Your task to perform on an android device: choose inbox layout in the gmail app Image 0: 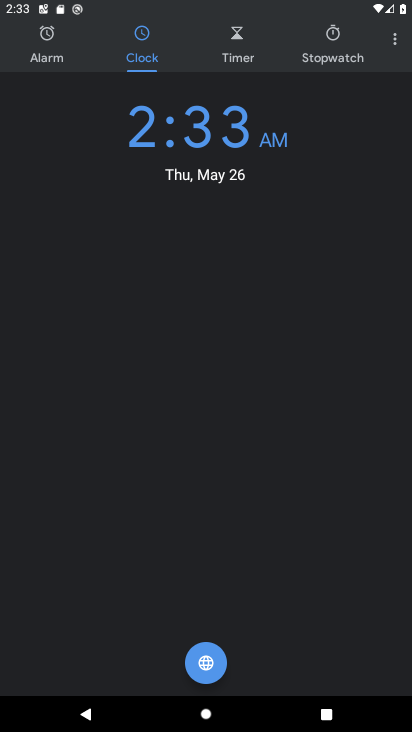
Step 0: press home button
Your task to perform on an android device: choose inbox layout in the gmail app Image 1: 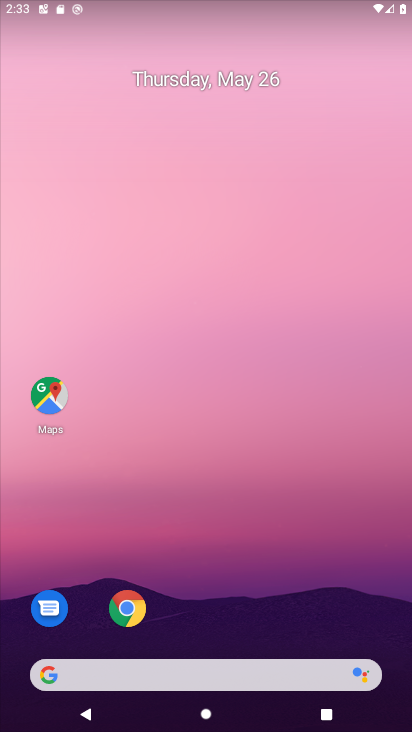
Step 1: drag from (198, 644) to (291, 190)
Your task to perform on an android device: choose inbox layout in the gmail app Image 2: 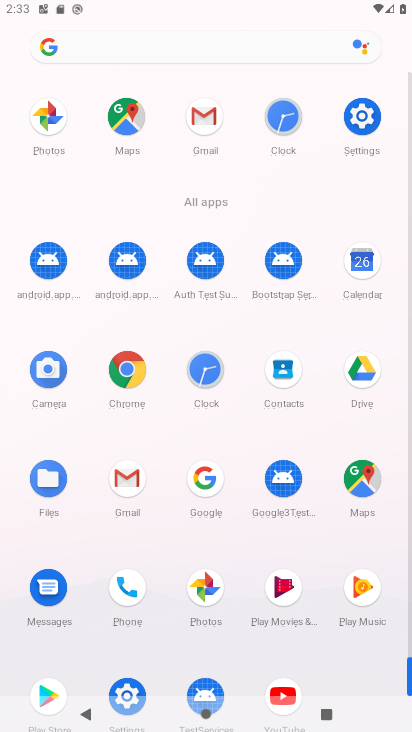
Step 2: click (129, 476)
Your task to perform on an android device: choose inbox layout in the gmail app Image 3: 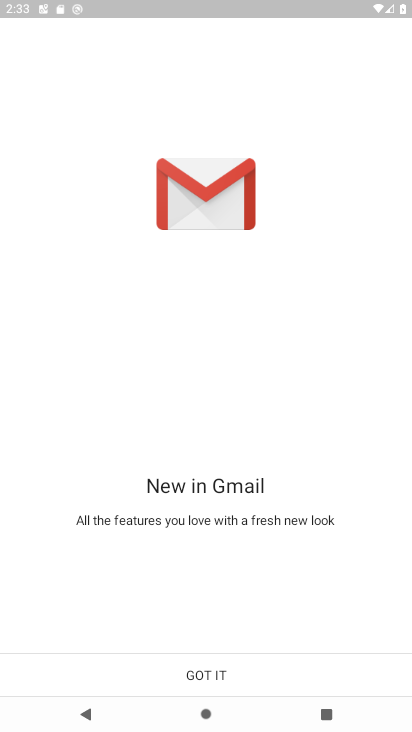
Step 3: click (208, 682)
Your task to perform on an android device: choose inbox layout in the gmail app Image 4: 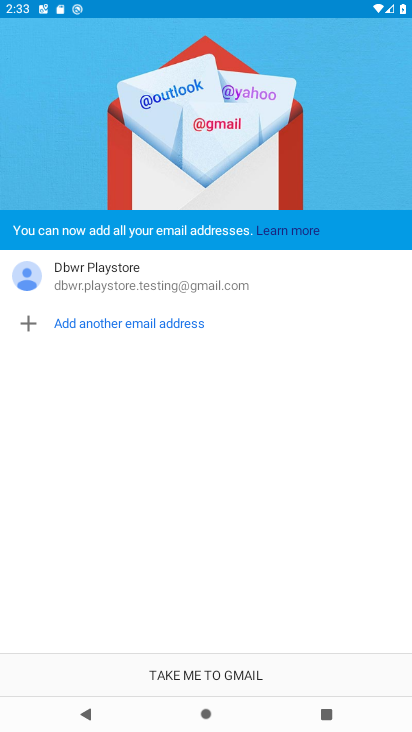
Step 4: click (208, 682)
Your task to perform on an android device: choose inbox layout in the gmail app Image 5: 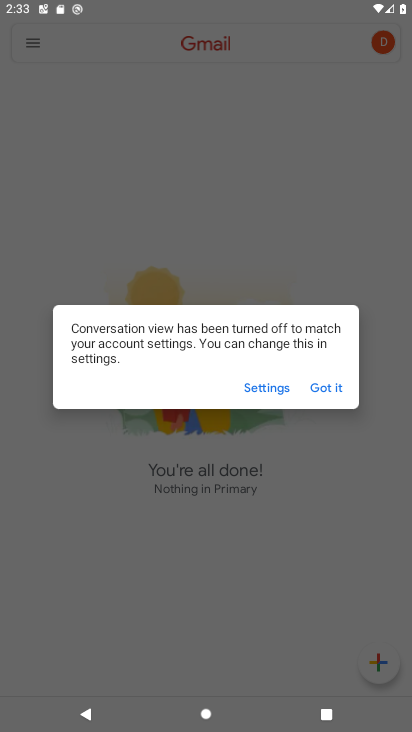
Step 5: click (335, 384)
Your task to perform on an android device: choose inbox layout in the gmail app Image 6: 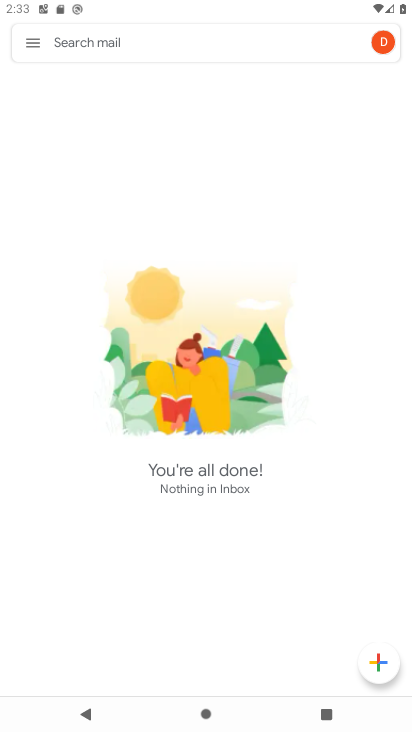
Step 6: click (43, 57)
Your task to perform on an android device: choose inbox layout in the gmail app Image 7: 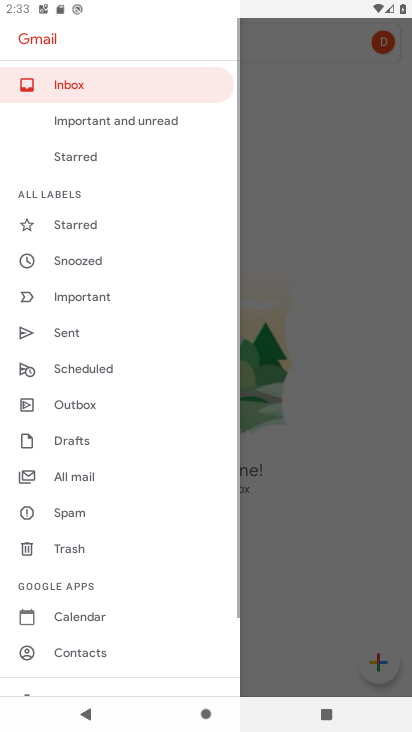
Step 7: drag from (157, 588) to (233, 286)
Your task to perform on an android device: choose inbox layout in the gmail app Image 8: 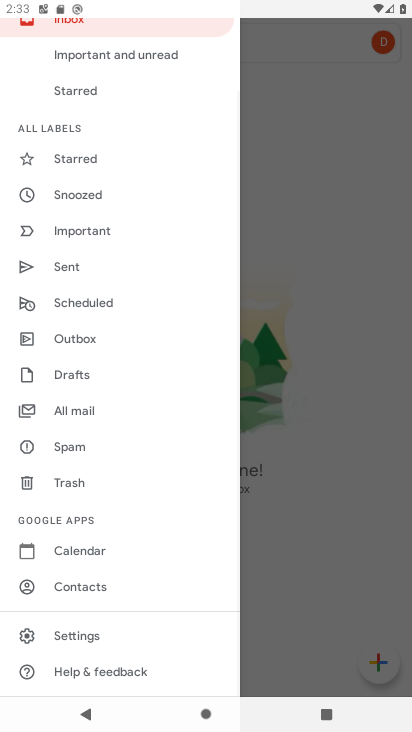
Step 8: click (106, 645)
Your task to perform on an android device: choose inbox layout in the gmail app Image 9: 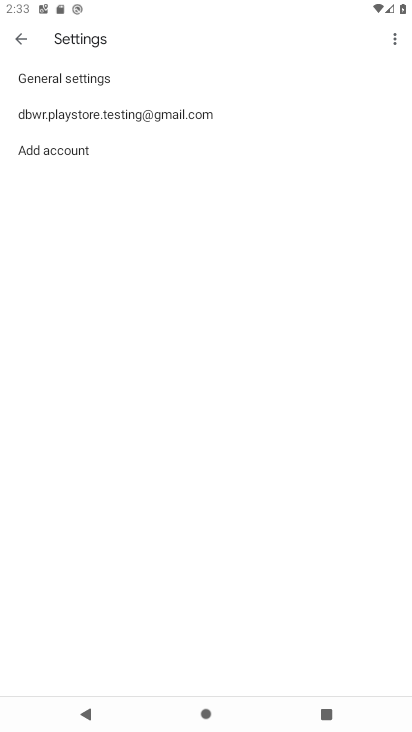
Step 9: click (238, 105)
Your task to perform on an android device: choose inbox layout in the gmail app Image 10: 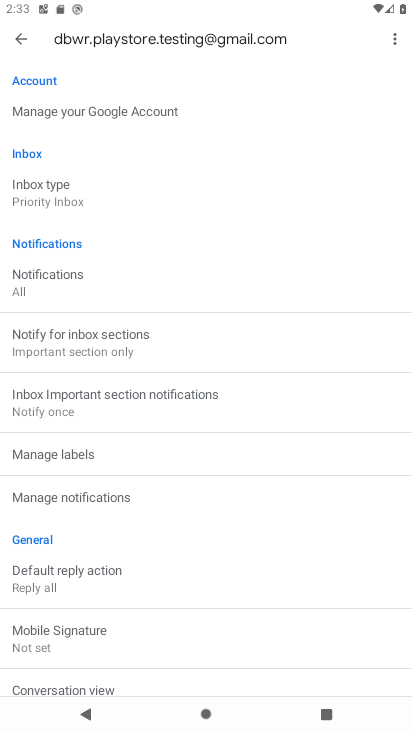
Step 10: click (183, 197)
Your task to perform on an android device: choose inbox layout in the gmail app Image 11: 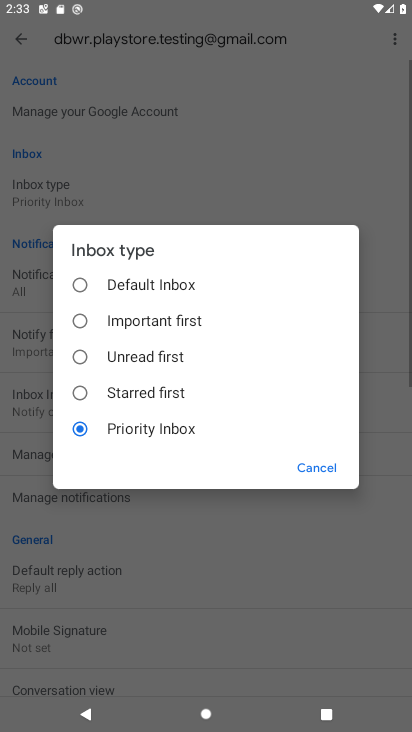
Step 11: click (189, 284)
Your task to perform on an android device: choose inbox layout in the gmail app Image 12: 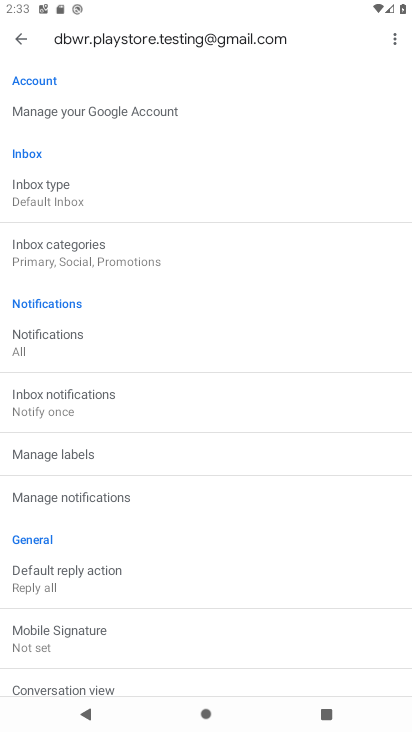
Step 12: task complete